Your task to perform on an android device: open app "Google Maps" Image 0: 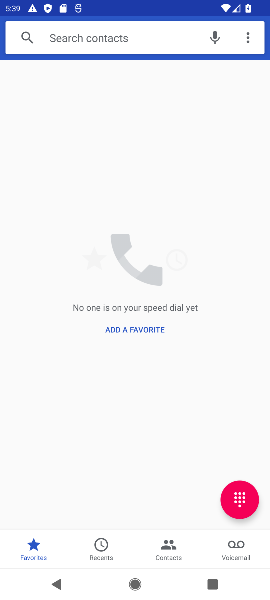
Step 0: press home button
Your task to perform on an android device: open app "Google Maps" Image 1: 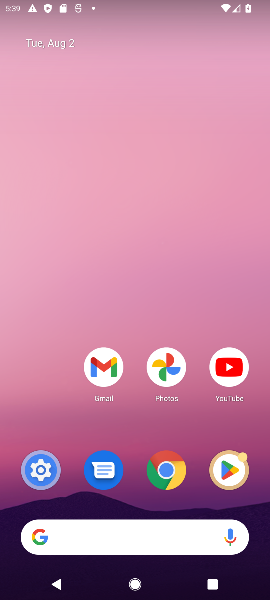
Step 1: drag from (168, 422) to (128, 113)
Your task to perform on an android device: open app "Google Maps" Image 2: 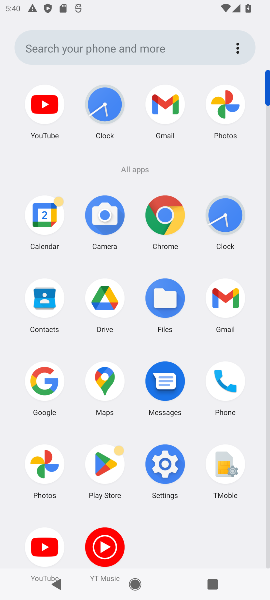
Step 2: click (109, 381)
Your task to perform on an android device: open app "Google Maps" Image 3: 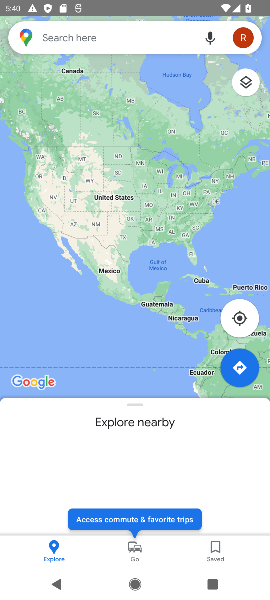
Step 3: task complete